Your task to perform on an android device: What's on my calendar today? Image 0: 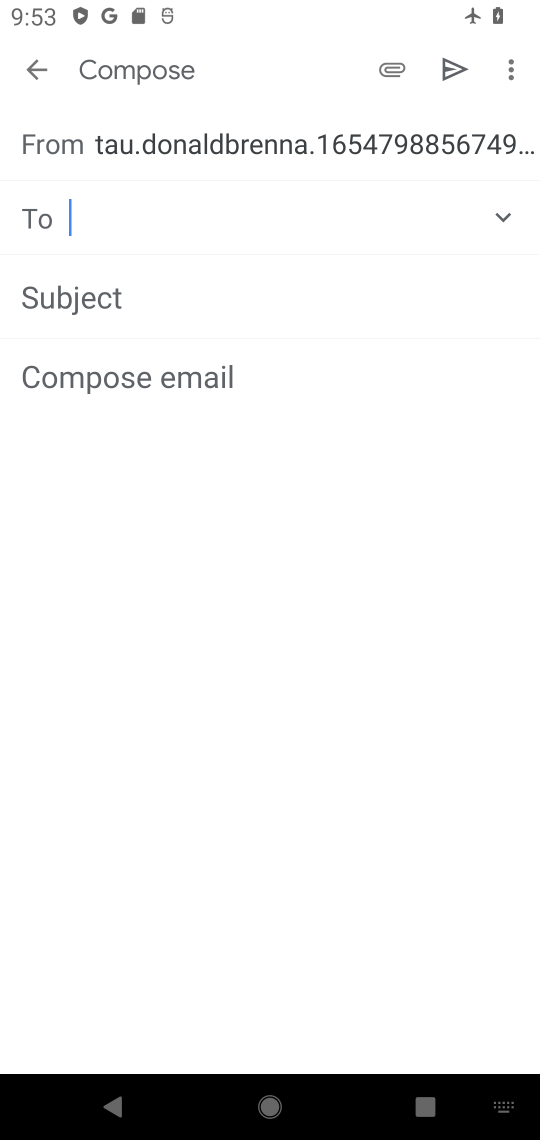
Step 0: press home button
Your task to perform on an android device: What's on my calendar today? Image 1: 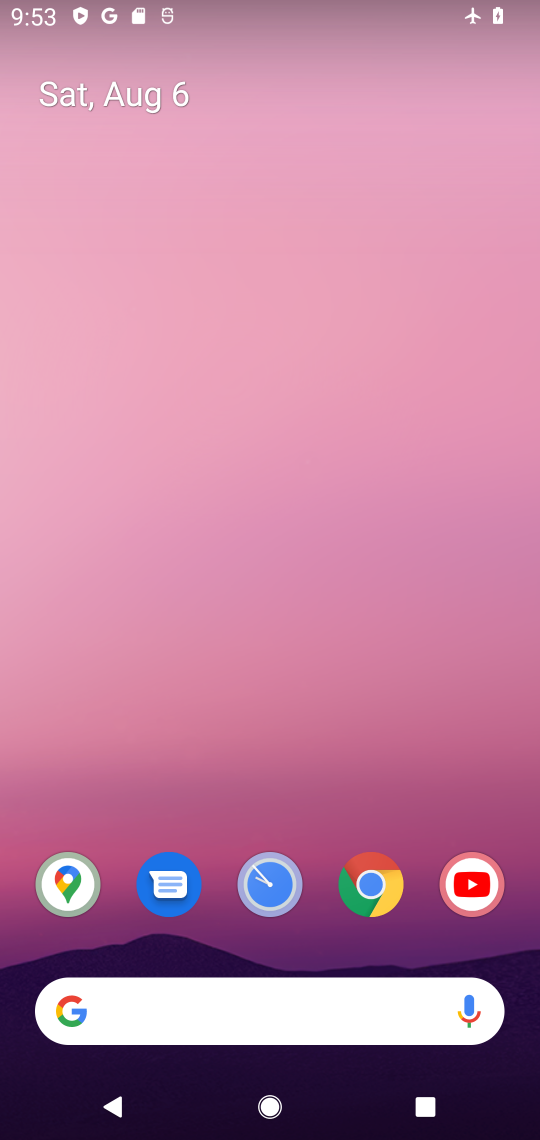
Step 1: drag from (423, 941) to (389, 131)
Your task to perform on an android device: What's on my calendar today? Image 2: 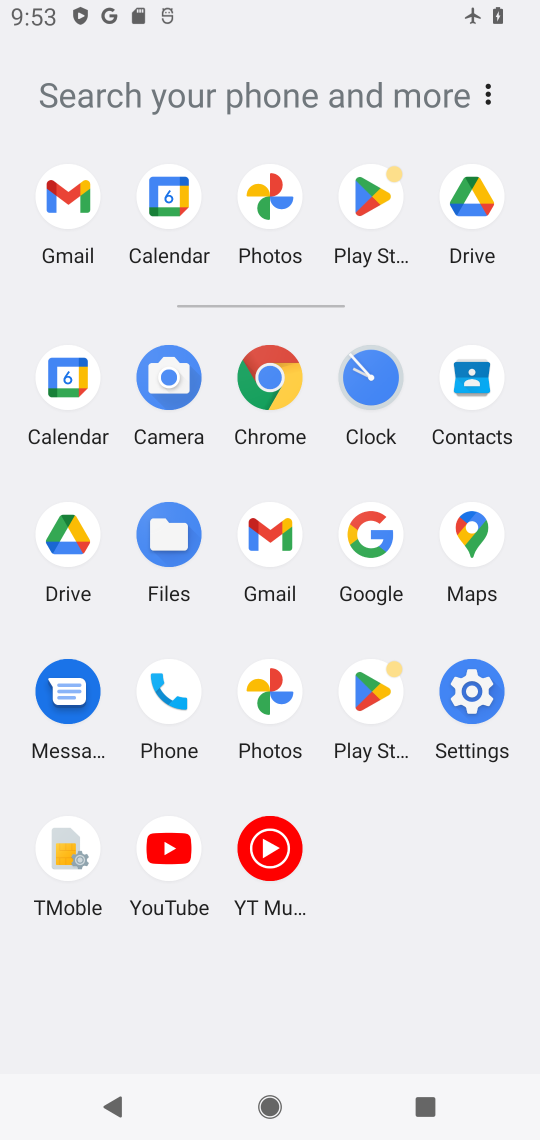
Step 2: click (62, 377)
Your task to perform on an android device: What's on my calendar today? Image 3: 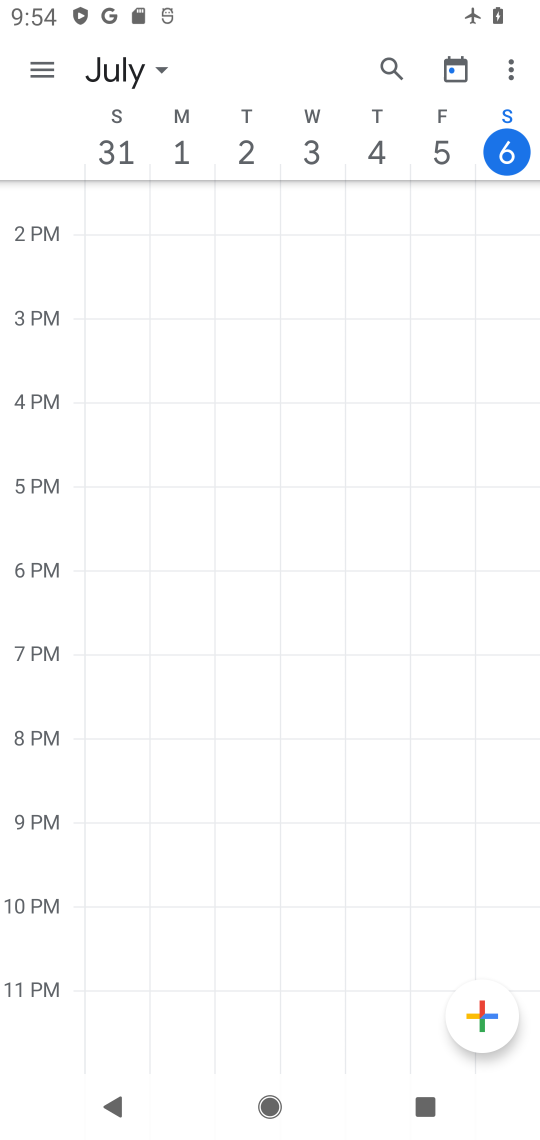
Step 3: click (46, 75)
Your task to perform on an android device: What's on my calendar today? Image 4: 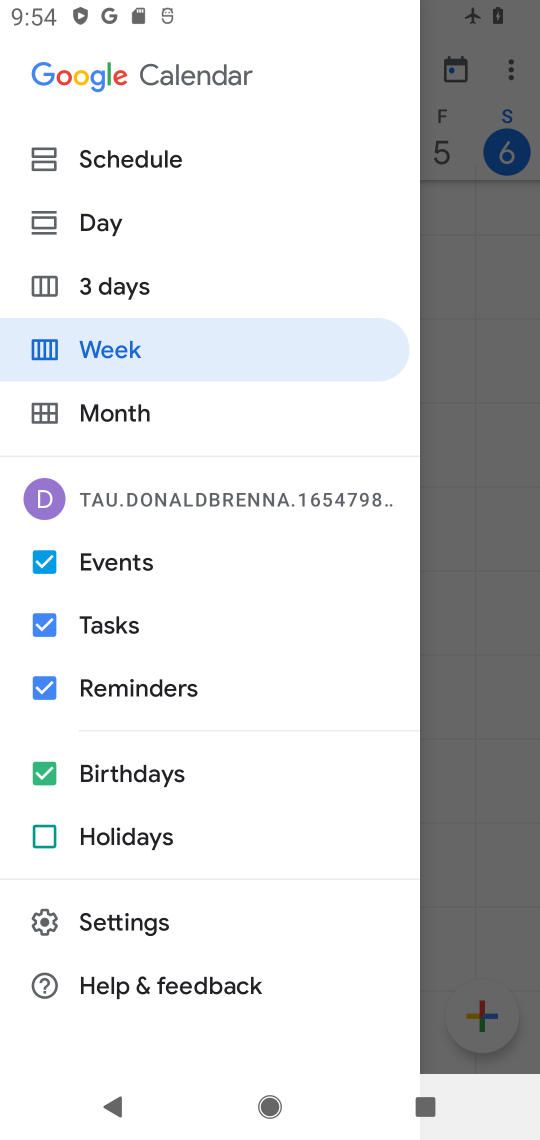
Step 4: click (93, 214)
Your task to perform on an android device: What's on my calendar today? Image 5: 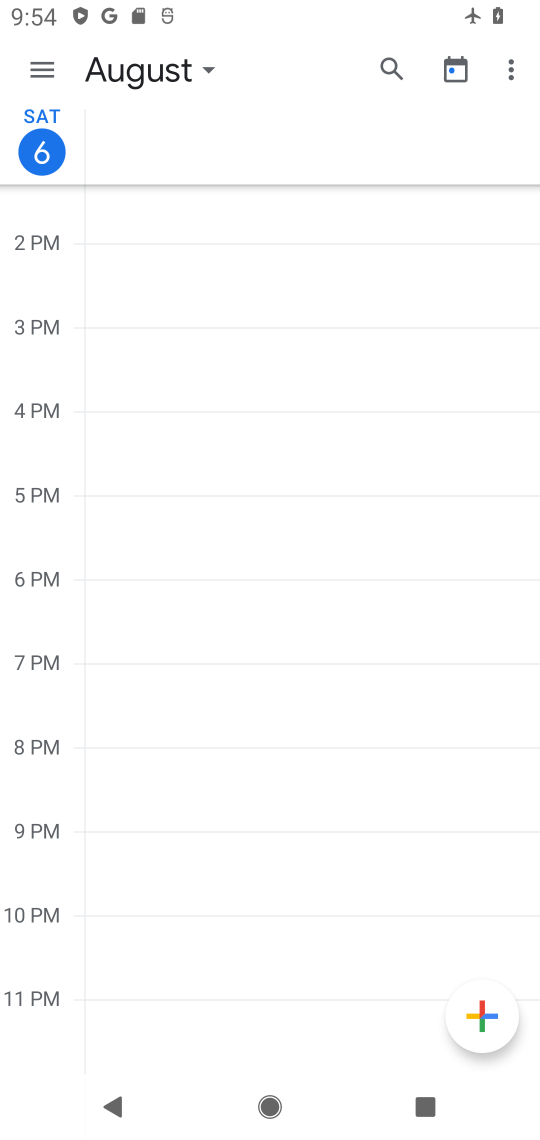
Step 5: task complete